Your task to perform on an android device: Open notification settings Image 0: 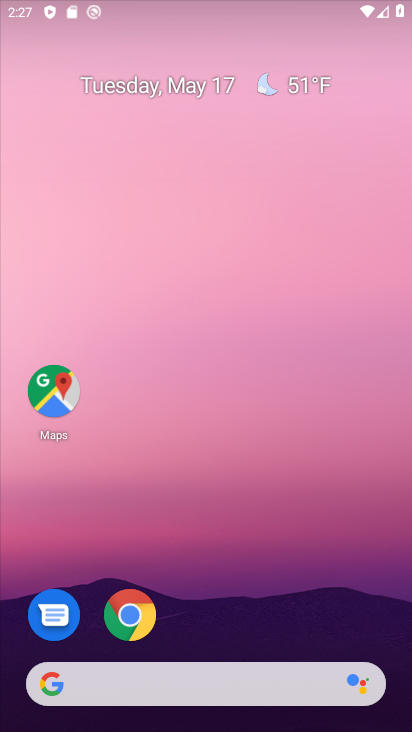
Step 0: drag from (216, 639) to (239, 85)
Your task to perform on an android device: Open notification settings Image 1: 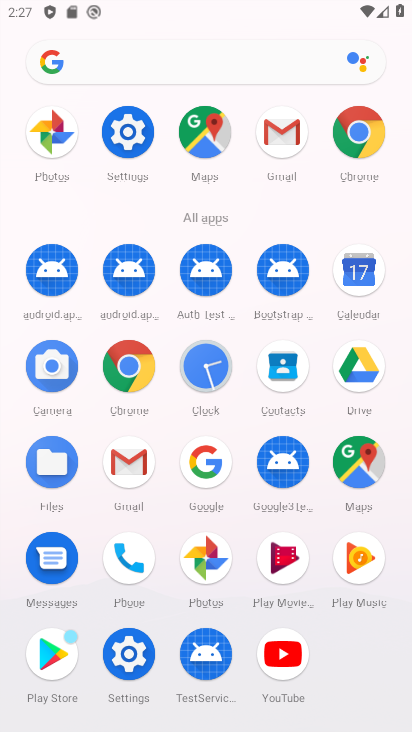
Step 1: click (125, 125)
Your task to perform on an android device: Open notification settings Image 2: 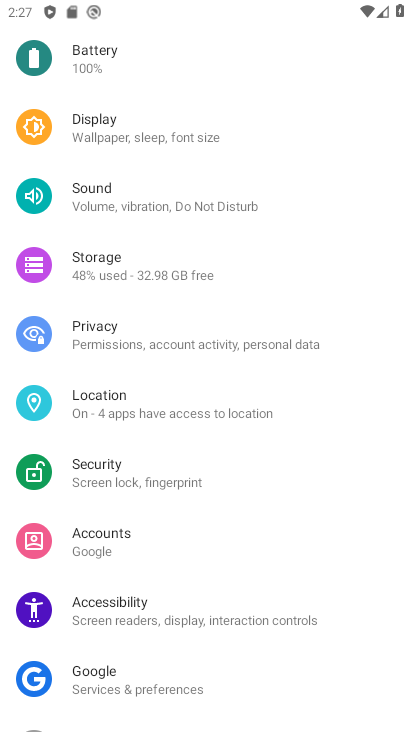
Step 2: drag from (136, 102) to (186, 611)
Your task to perform on an android device: Open notification settings Image 3: 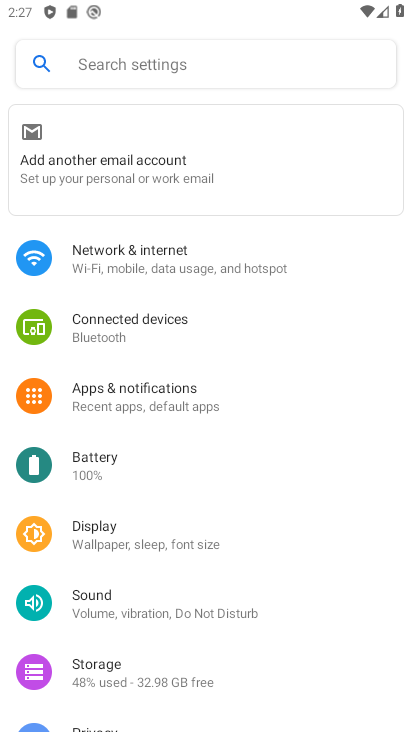
Step 3: click (217, 393)
Your task to perform on an android device: Open notification settings Image 4: 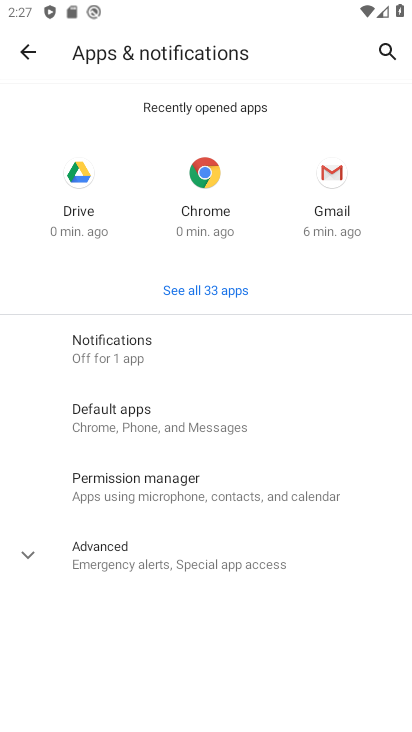
Step 4: click (169, 344)
Your task to perform on an android device: Open notification settings Image 5: 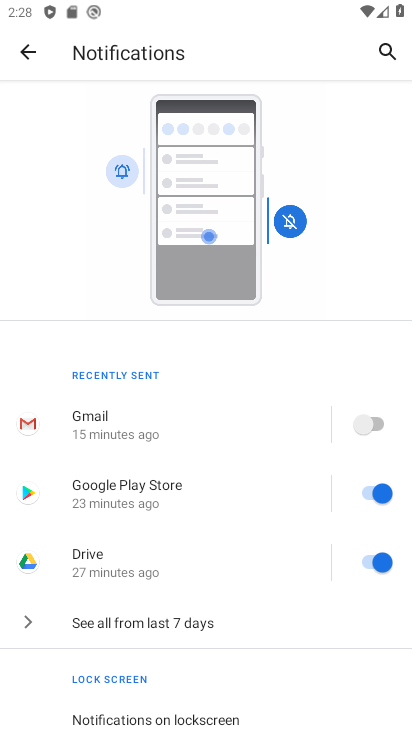
Step 5: drag from (240, 679) to (277, 204)
Your task to perform on an android device: Open notification settings Image 6: 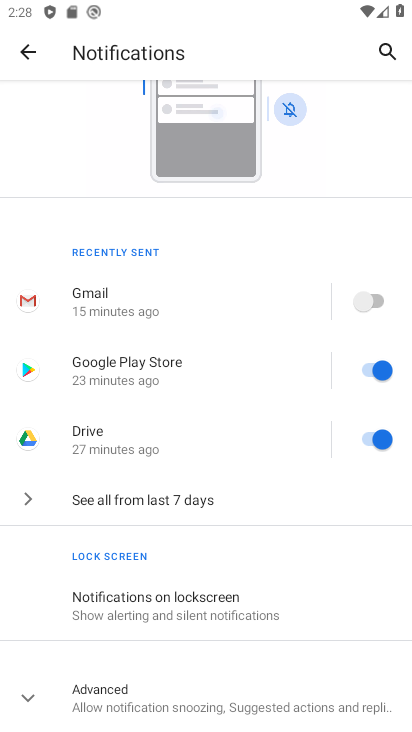
Step 6: click (26, 694)
Your task to perform on an android device: Open notification settings Image 7: 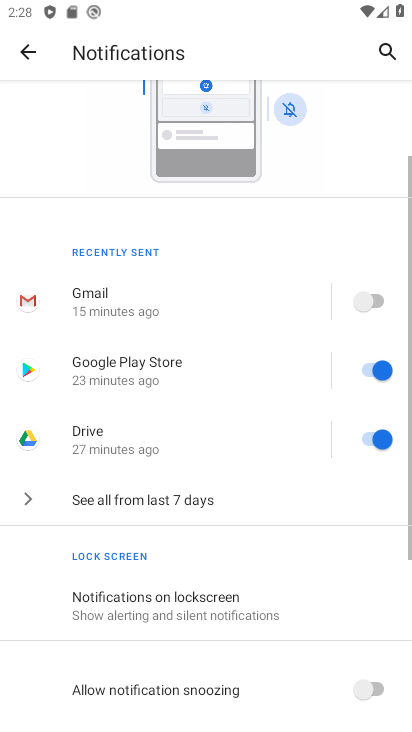
Step 7: task complete